Your task to perform on an android device: Open my contact list Image 0: 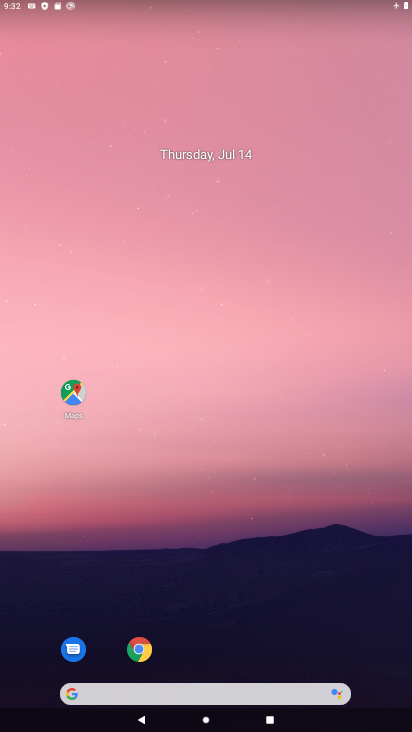
Step 0: click (99, 697)
Your task to perform on an android device: Open my contact list Image 1: 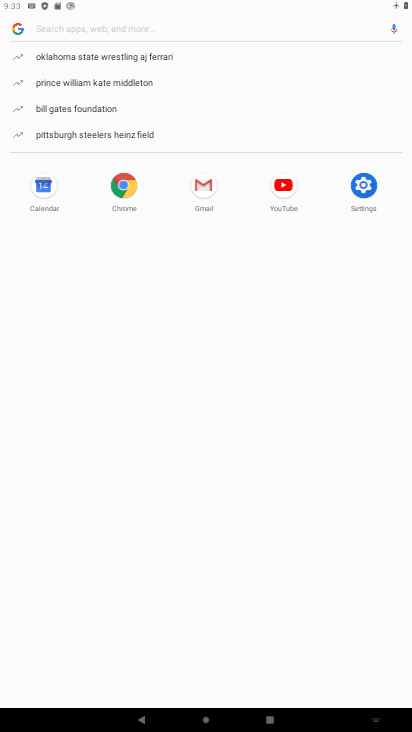
Step 1: type "wheather"
Your task to perform on an android device: Open my contact list Image 2: 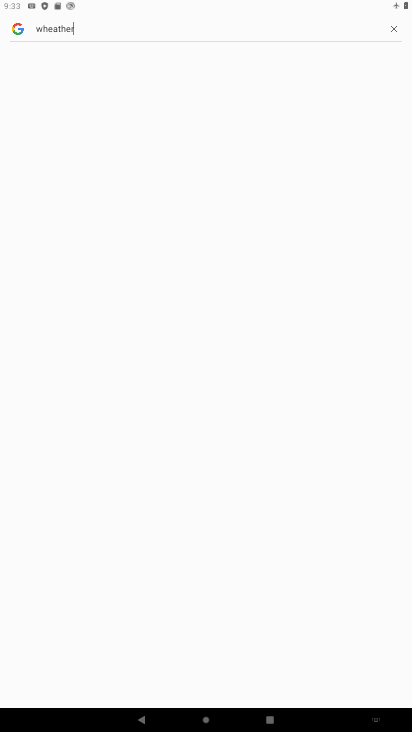
Step 2: press back button
Your task to perform on an android device: Open my contact list Image 3: 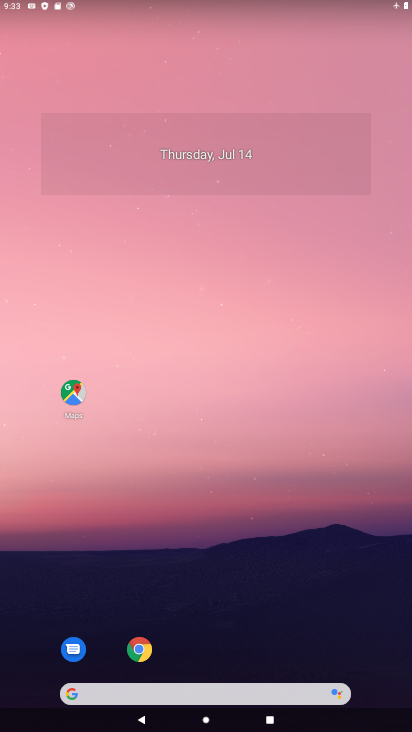
Step 3: drag from (200, 644) to (292, 11)
Your task to perform on an android device: Open my contact list Image 4: 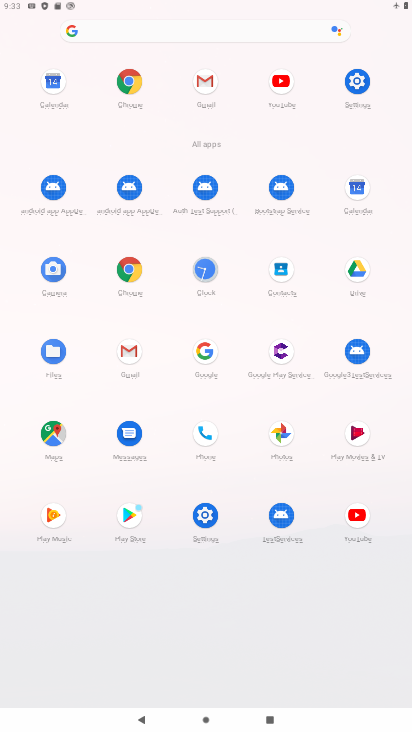
Step 4: click (281, 288)
Your task to perform on an android device: Open my contact list Image 5: 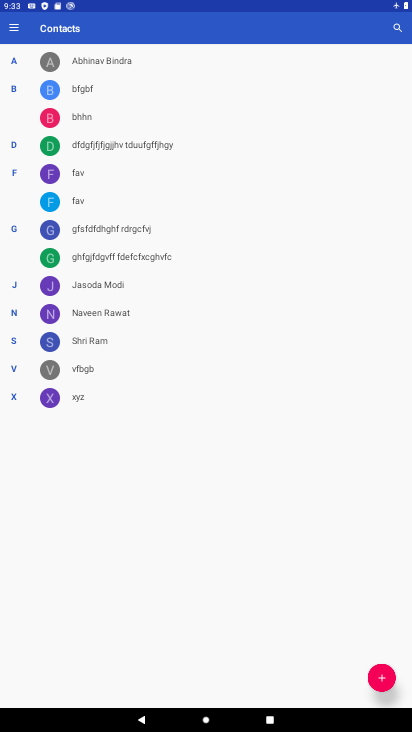
Step 5: task complete